Your task to perform on an android device: delete location history Image 0: 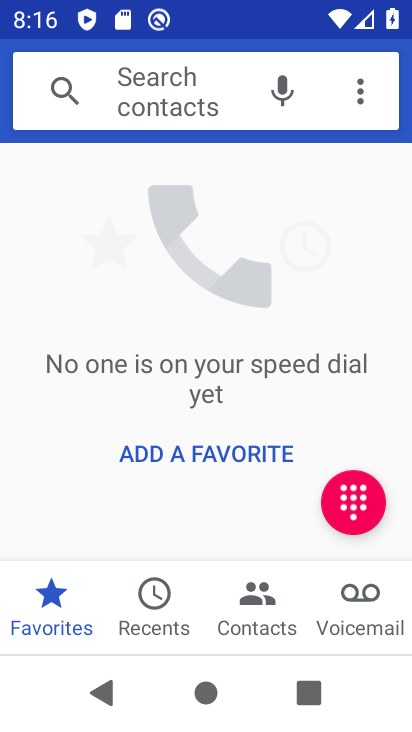
Step 0: press home button
Your task to perform on an android device: delete location history Image 1: 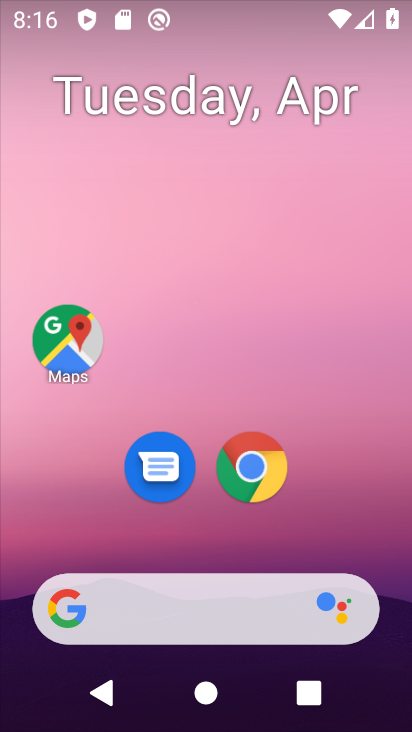
Step 1: click (64, 348)
Your task to perform on an android device: delete location history Image 2: 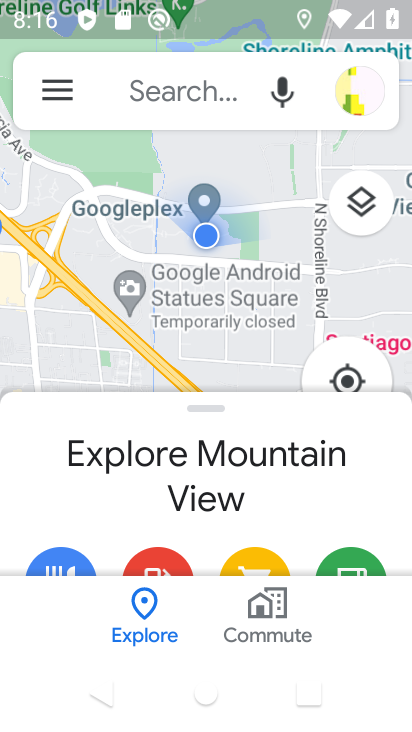
Step 2: click (59, 92)
Your task to perform on an android device: delete location history Image 3: 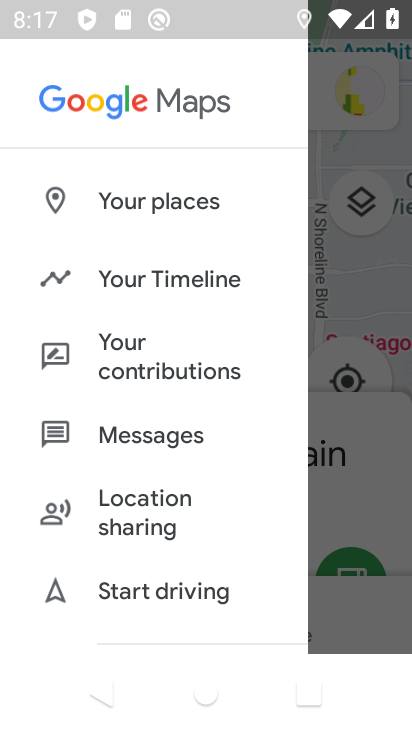
Step 3: click (144, 286)
Your task to perform on an android device: delete location history Image 4: 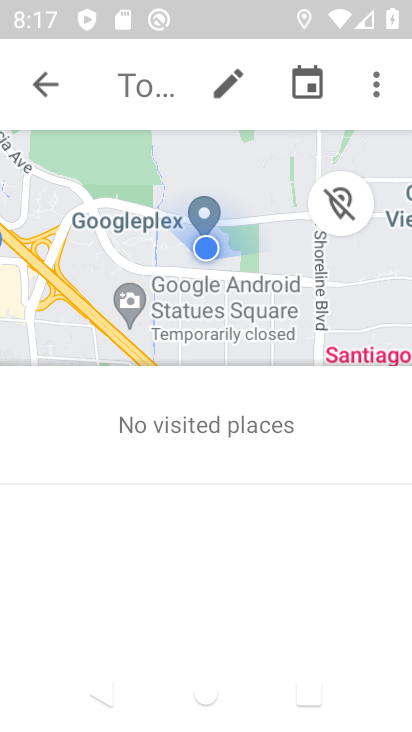
Step 4: click (380, 81)
Your task to perform on an android device: delete location history Image 5: 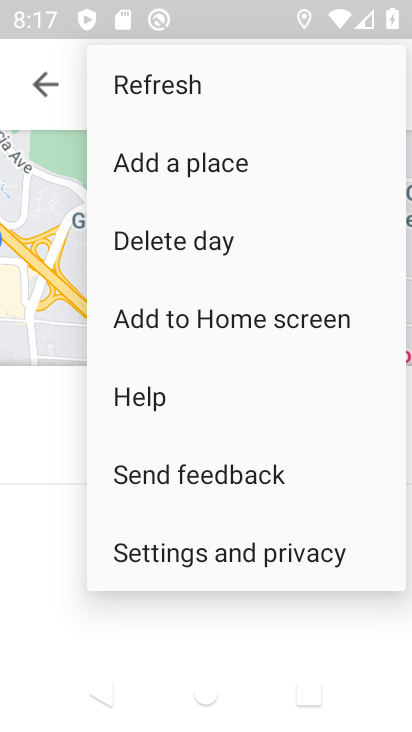
Step 5: click (244, 546)
Your task to perform on an android device: delete location history Image 6: 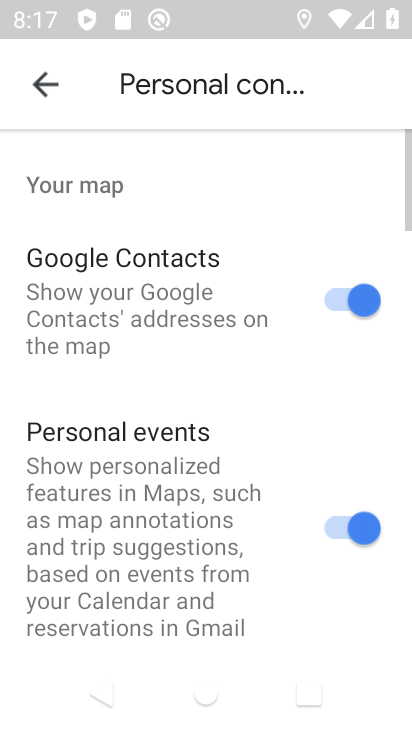
Step 6: drag from (196, 551) to (188, 141)
Your task to perform on an android device: delete location history Image 7: 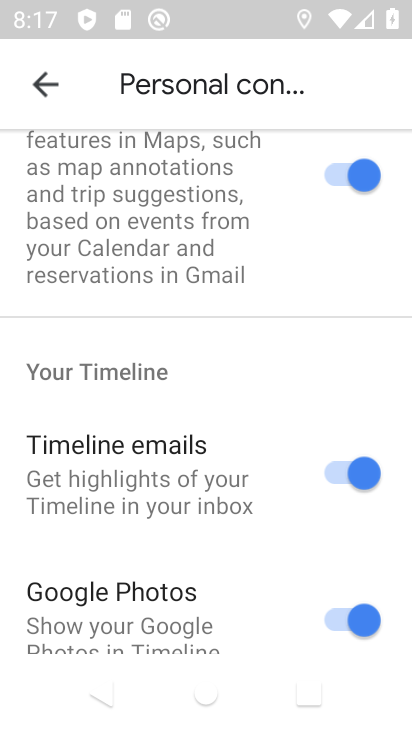
Step 7: drag from (216, 536) to (210, 148)
Your task to perform on an android device: delete location history Image 8: 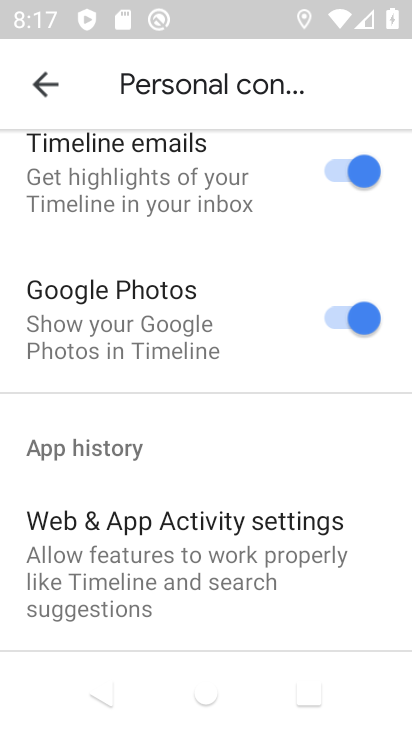
Step 8: drag from (174, 456) to (175, 153)
Your task to perform on an android device: delete location history Image 9: 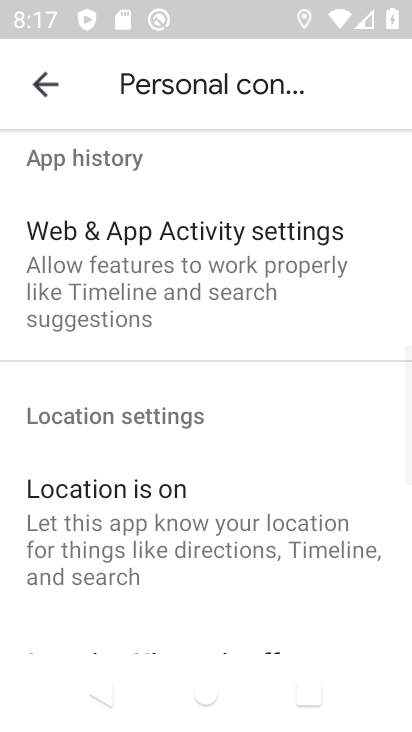
Step 9: drag from (167, 479) to (167, 113)
Your task to perform on an android device: delete location history Image 10: 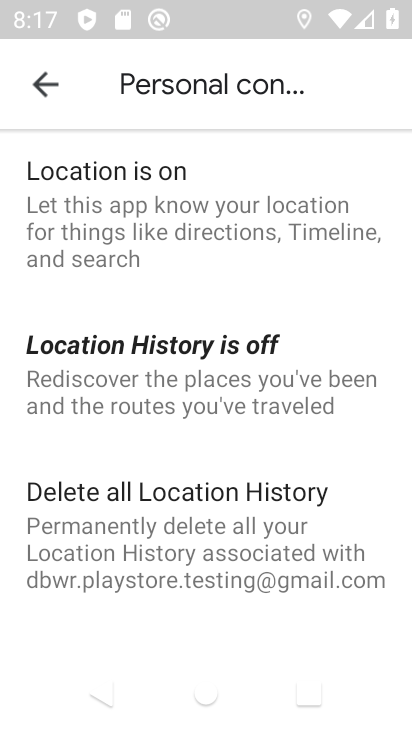
Step 10: click (156, 508)
Your task to perform on an android device: delete location history Image 11: 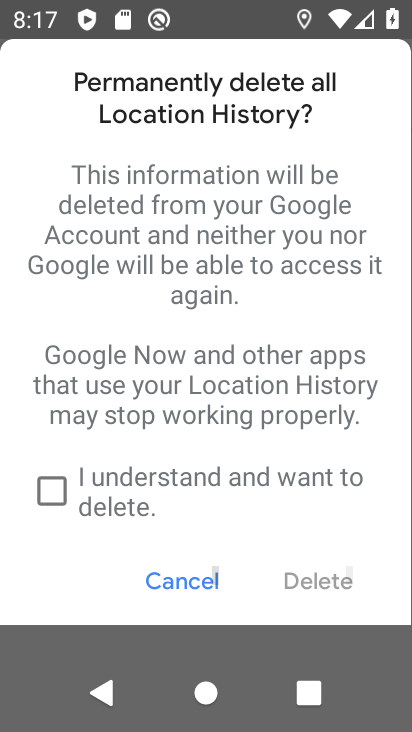
Step 11: click (55, 487)
Your task to perform on an android device: delete location history Image 12: 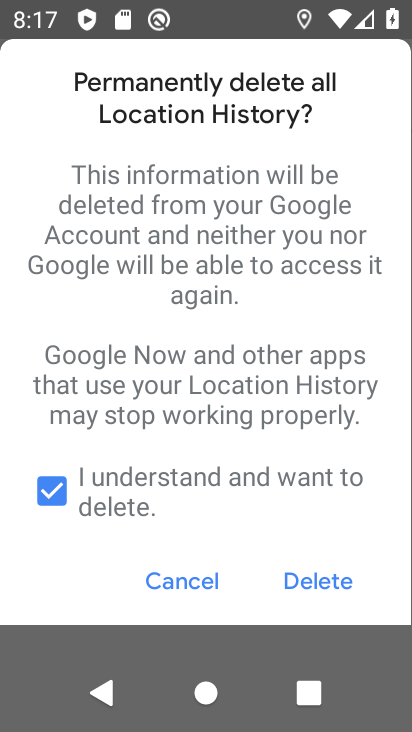
Step 12: click (302, 577)
Your task to perform on an android device: delete location history Image 13: 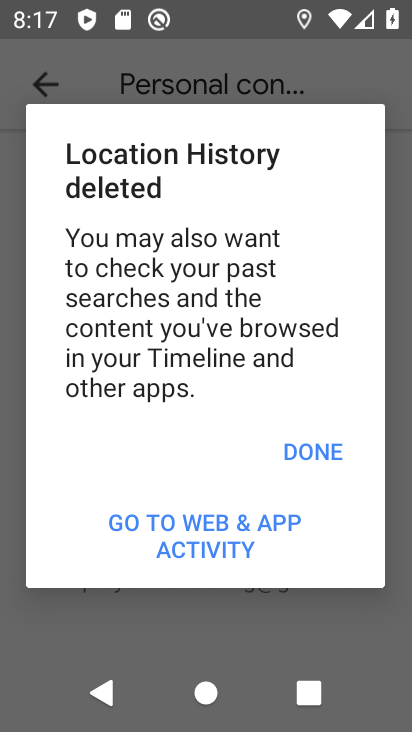
Step 13: click (308, 451)
Your task to perform on an android device: delete location history Image 14: 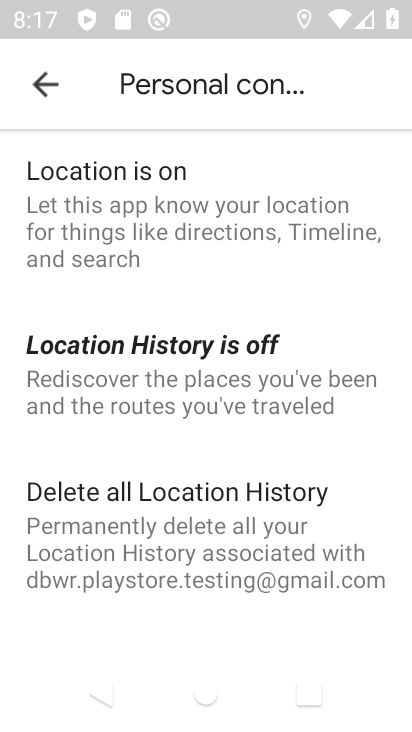
Step 14: task complete